Your task to perform on an android device: turn on data saver in the chrome app Image 0: 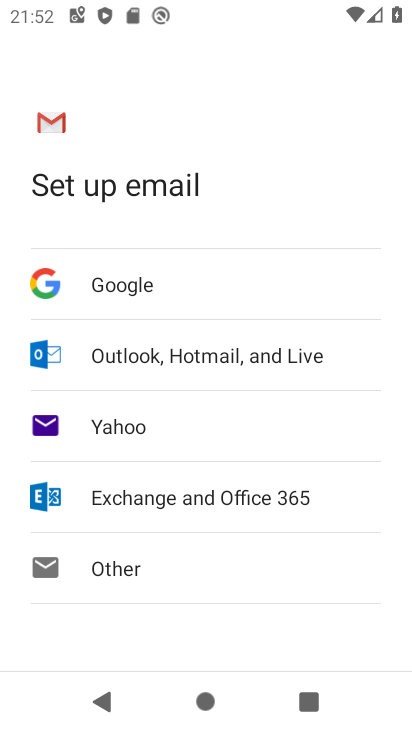
Step 0: press home button
Your task to perform on an android device: turn on data saver in the chrome app Image 1: 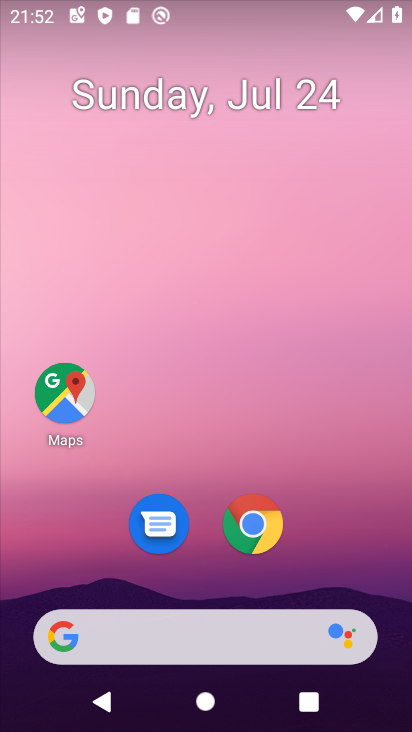
Step 1: click (256, 521)
Your task to perform on an android device: turn on data saver in the chrome app Image 2: 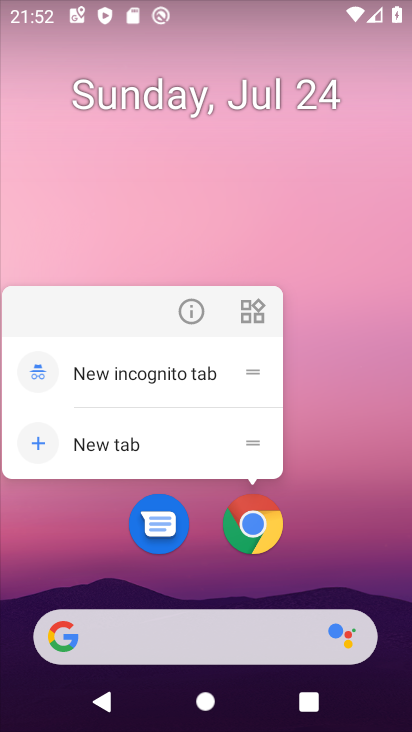
Step 2: click (256, 521)
Your task to perform on an android device: turn on data saver in the chrome app Image 3: 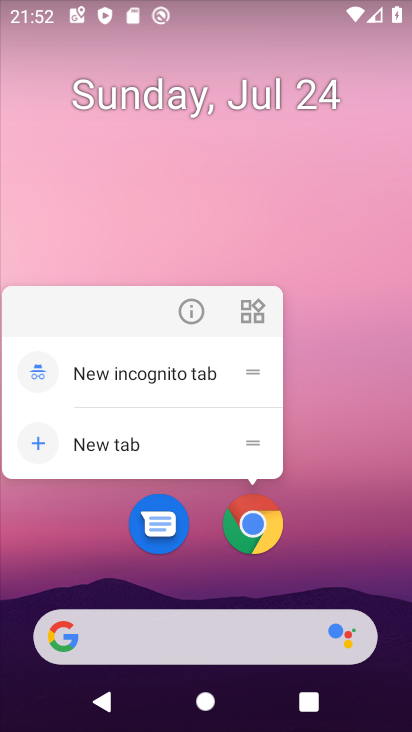
Step 3: click (249, 529)
Your task to perform on an android device: turn on data saver in the chrome app Image 4: 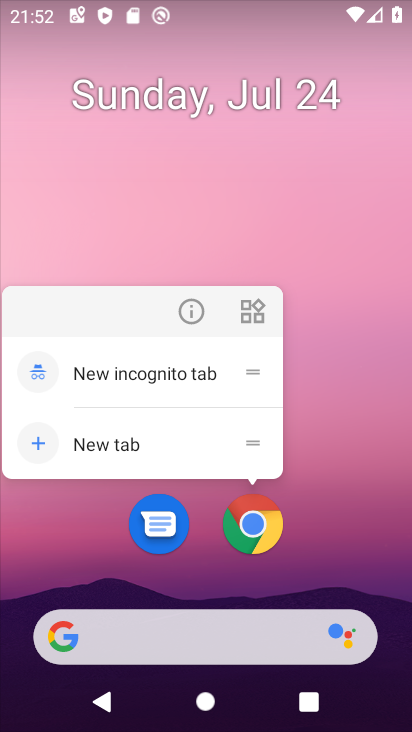
Step 4: click (249, 529)
Your task to perform on an android device: turn on data saver in the chrome app Image 5: 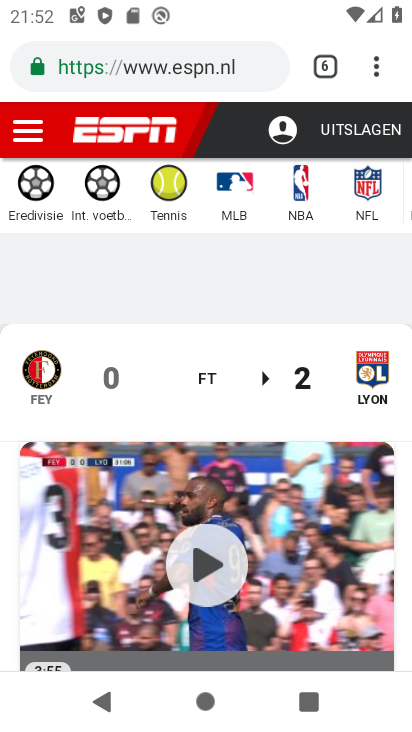
Step 5: click (376, 62)
Your task to perform on an android device: turn on data saver in the chrome app Image 6: 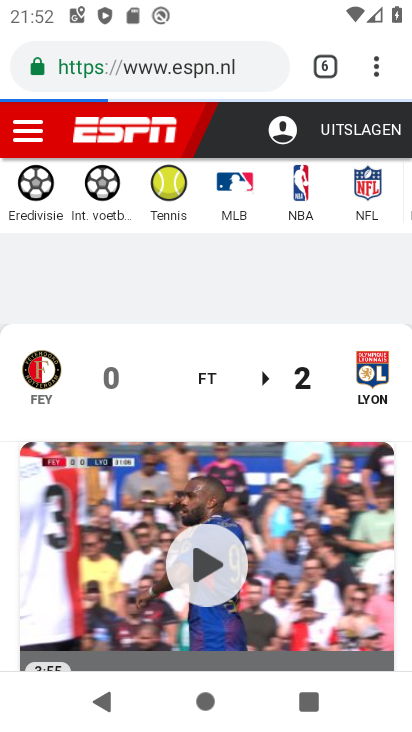
Step 6: drag from (377, 67) to (285, 515)
Your task to perform on an android device: turn on data saver in the chrome app Image 7: 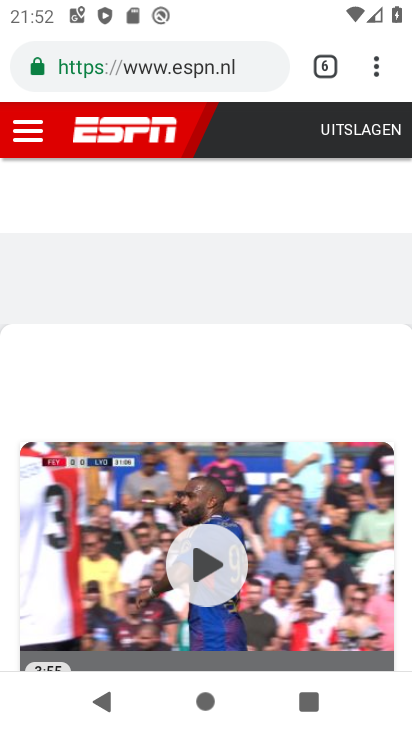
Step 7: click (285, 515)
Your task to perform on an android device: turn on data saver in the chrome app Image 8: 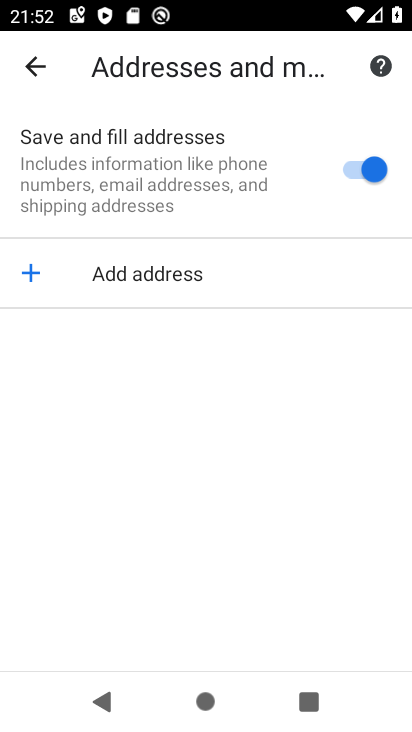
Step 8: click (34, 60)
Your task to perform on an android device: turn on data saver in the chrome app Image 9: 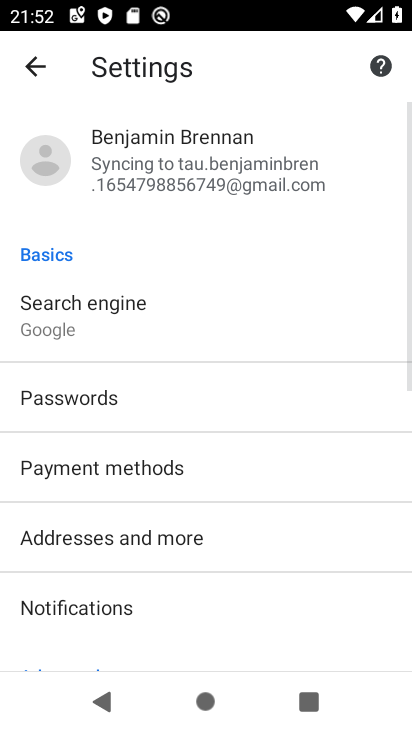
Step 9: drag from (161, 616) to (355, 130)
Your task to perform on an android device: turn on data saver in the chrome app Image 10: 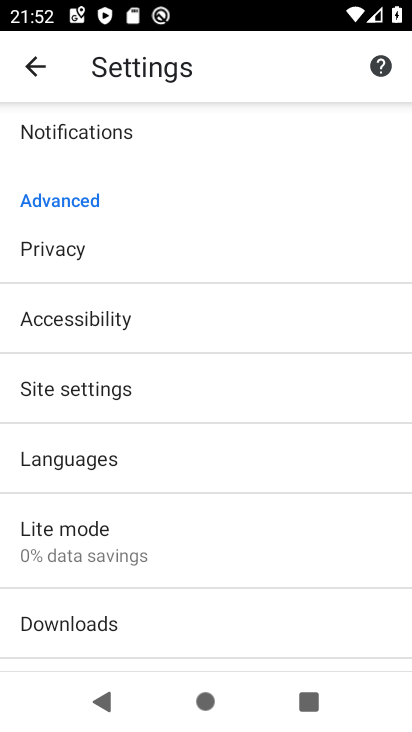
Step 10: click (126, 544)
Your task to perform on an android device: turn on data saver in the chrome app Image 11: 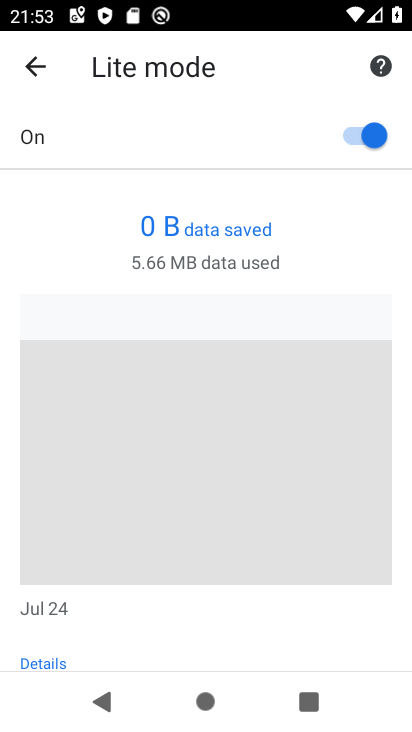
Step 11: task complete